Your task to perform on an android device: Open Yahoo.com Image 0: 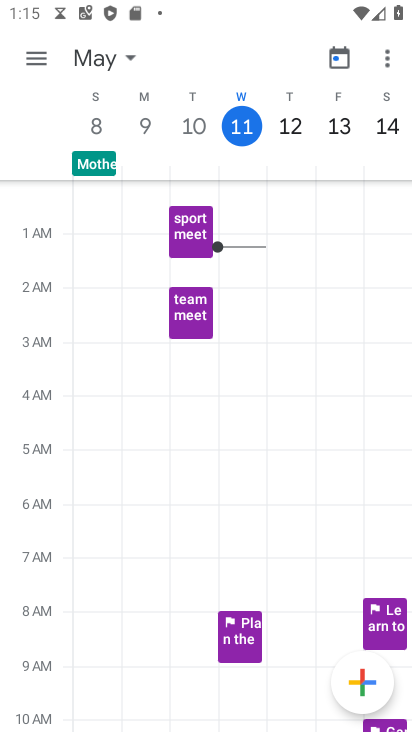
Step 0: press home button
Your task to perform on an android device: Open Yahoo.com Image 1: 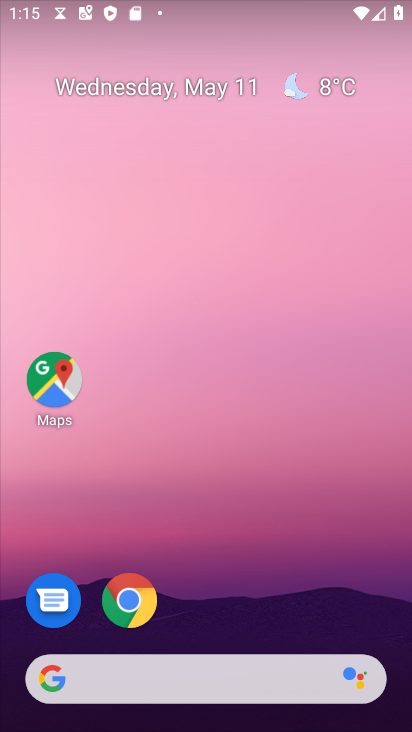
Step 1: click (151, 598)
Your task to perform on an android device: Open Yahoo.com Image 2: 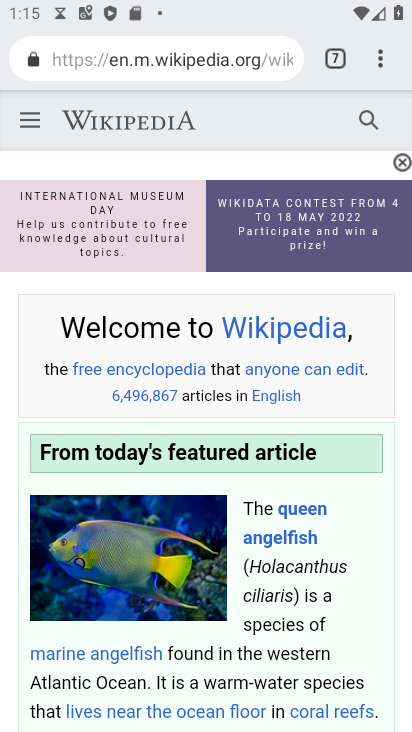
Step 2: click (331, 55)
Your task to perform on an android device: Open Yahoo.com Image 3: 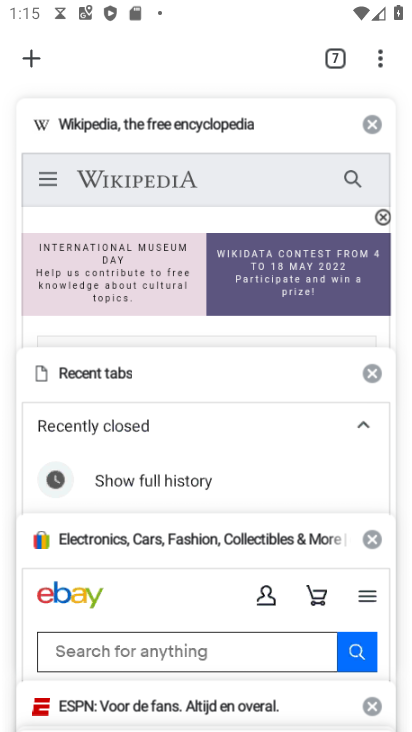
Step 3: drag from (170, 505) to (160, 108)
Your task to perform on an android device: Open Yahoo.com Image 4: 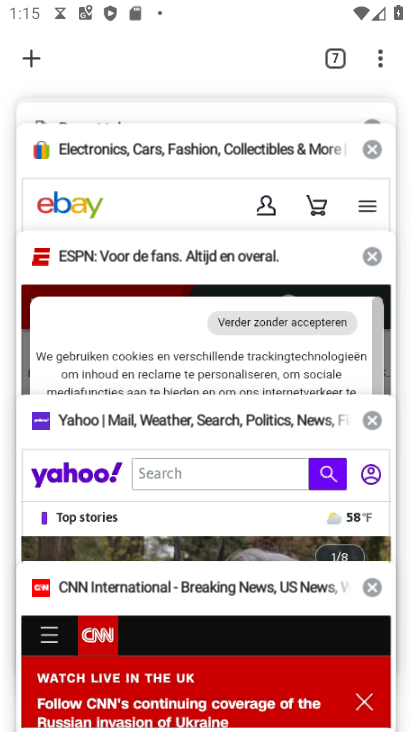
Step 4: click (98, 444)
Your task to perform on an android device: Open Yahoo.com Image 5: 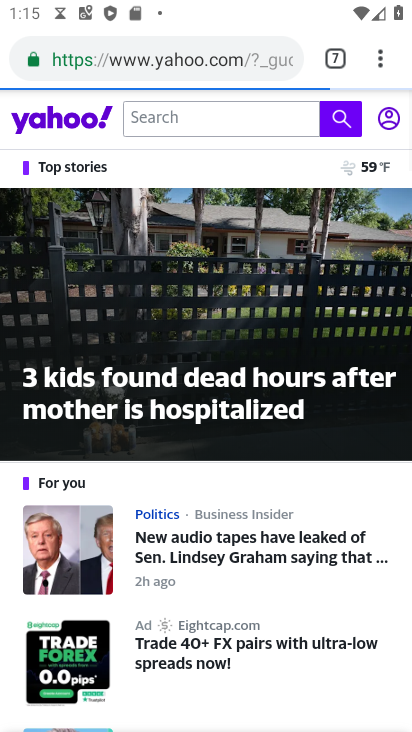
Step 5: task complete